Your task to perform on an android device: change the clock display to show seconds Image 0: 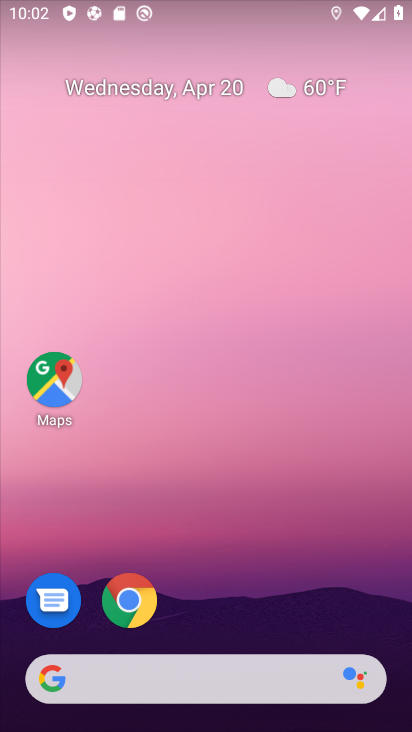
Step 0: drag from (284, 453) to (337, 262)
Your task to perform on an android device: change the clock display to show seconds Image 1: 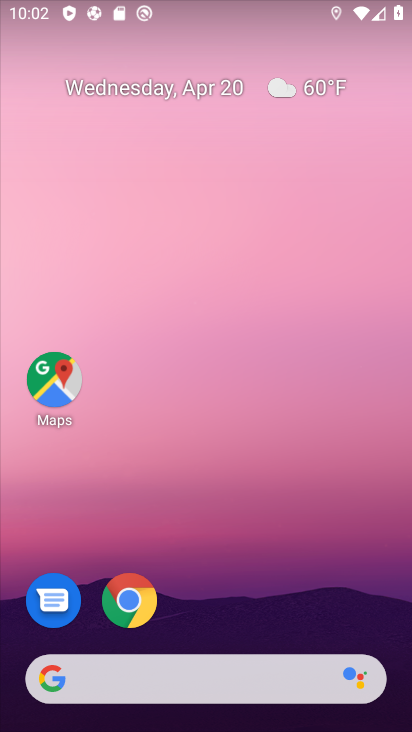
Step 1: drag from (281, 603) to (387, 115)
Your task to perform on an android device: change the clock display to show seconds Image 2: 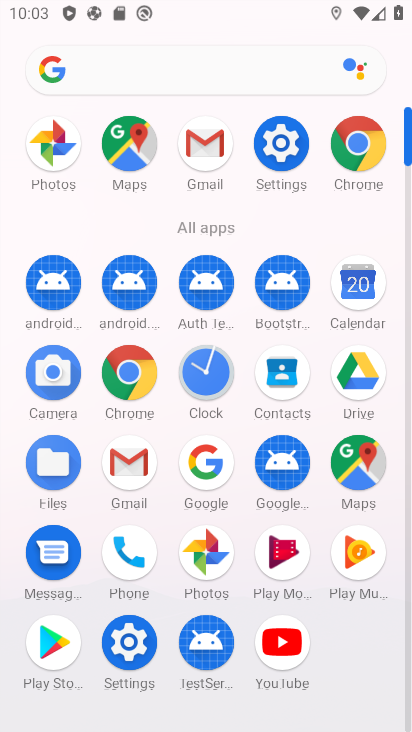
Step 2: click (195, 372)
Your task to perform on an android device: change the clock display to show seconds Image 3: 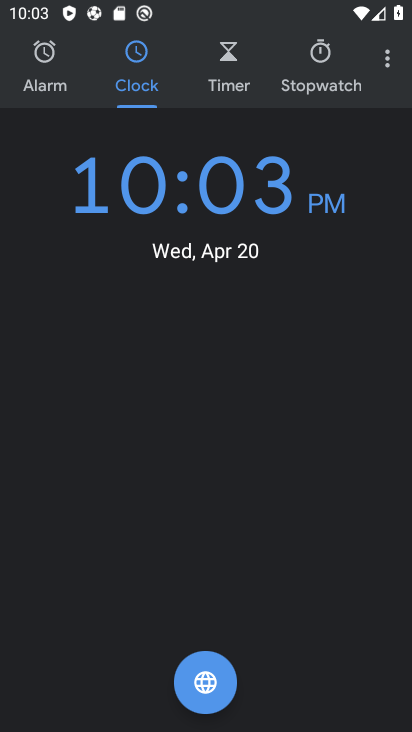
Step 3: click (389, 52)
Your task to perform on an android device: change the clock display to show seconds Image 4: 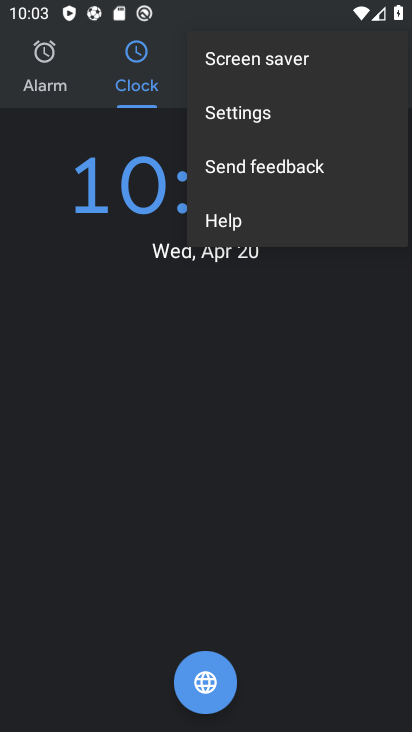
Step 4: click (266, 121)
Your task to perform on an android device: change the clock display to show seconds Image 5: 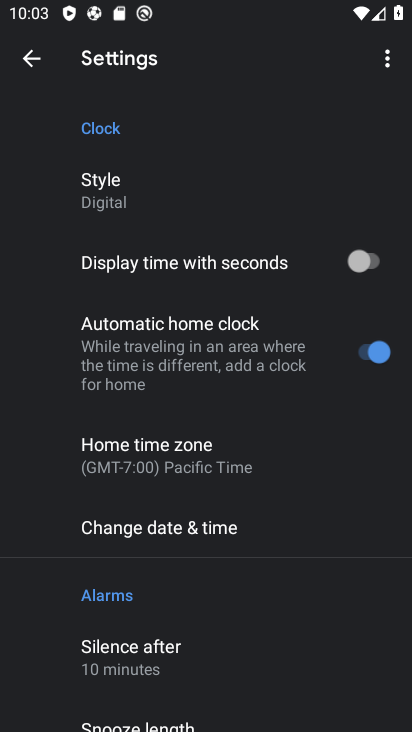
Step 5: click (380, 262)
Your task to perform on an android device: change the clock display to show seconds Image 6: 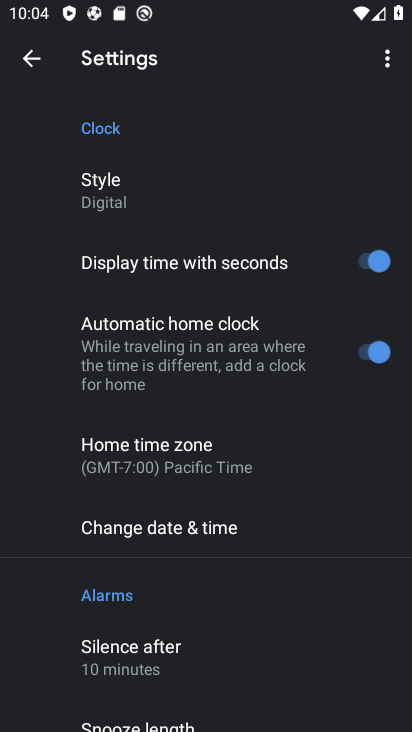
Step 6: task complete